Your task to perform on an android device: turn off improve location accuracy Image 0: 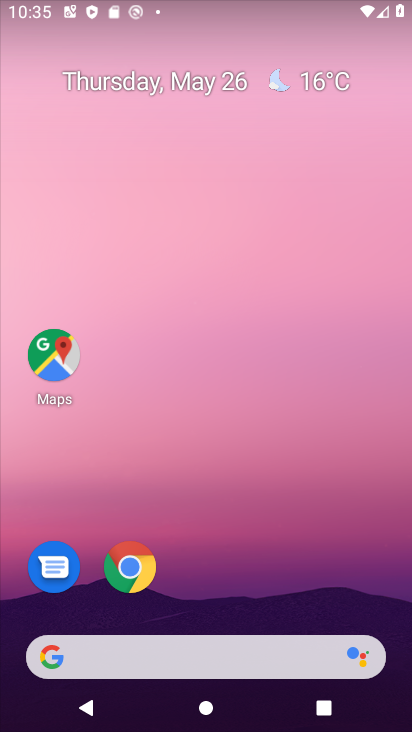
Step 0: press home button
Your task to perform on an android device: turn off improve location accuracy Image 1: 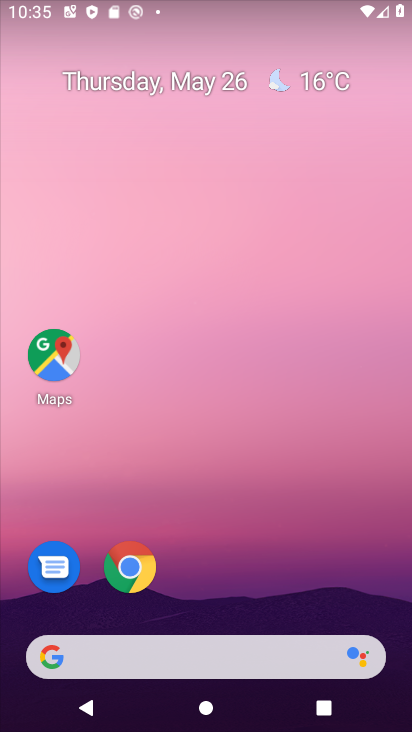
Step 1: drag from (226, 607) to (221, 213)
Your task to perform on an android device: turn off improve location accuracy Image 2: 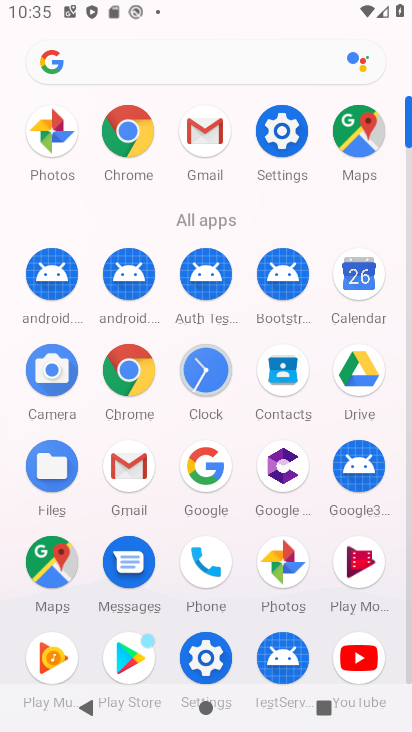
Step 2: click (279, 124)
Your task to perform on an android device: turn off improve location accuracy Image 3: 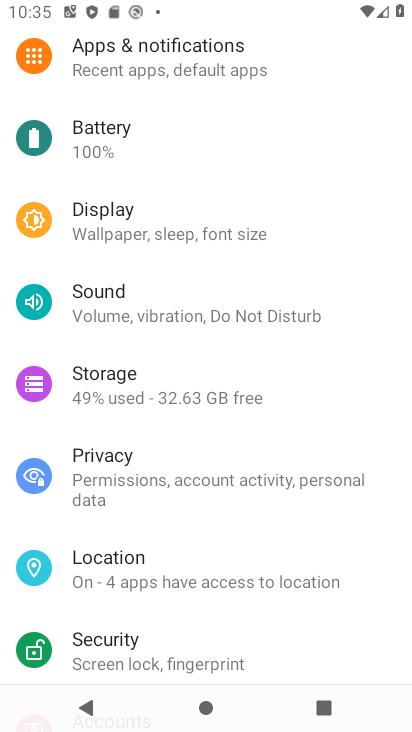
Step 3: click (164, 554)
Your task to perform on an android device: turn off improve location accuracy Image 4: 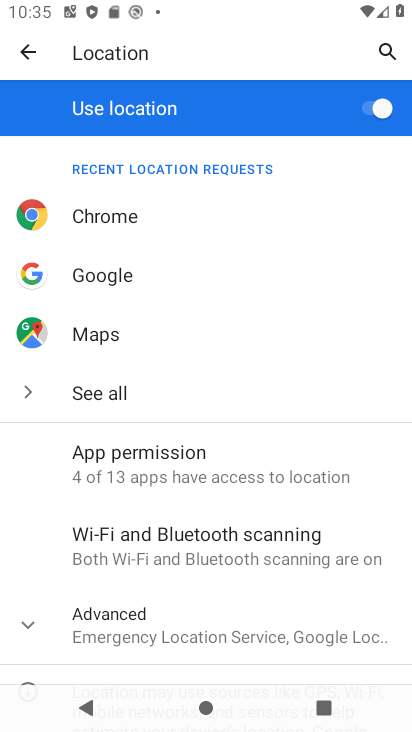
Step 4: click (90, 620)
Your task to perform on an android device: turn off improve location accuracy Image 5: 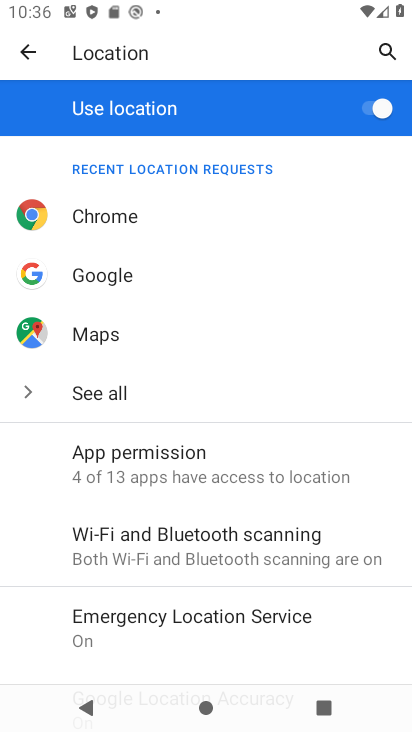
Step 5: drag from (156, 615) to (170, 214)
Your task to perform on an android device: turn off improve location accuracy Image 6: 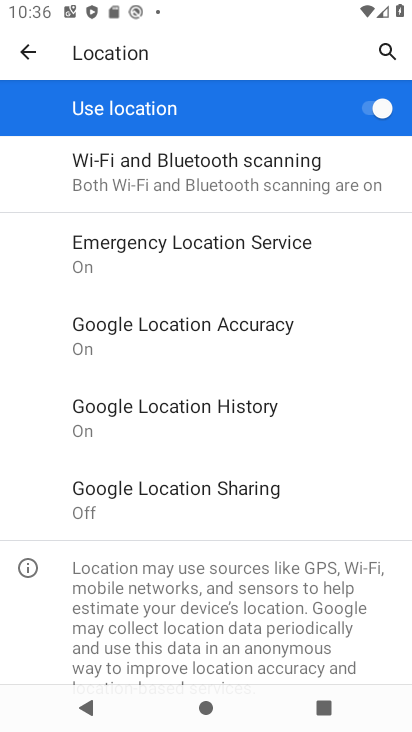
Step 6: click (109, 334)
Your task to perform on an android device: turn off improve location accuracy Image 7: 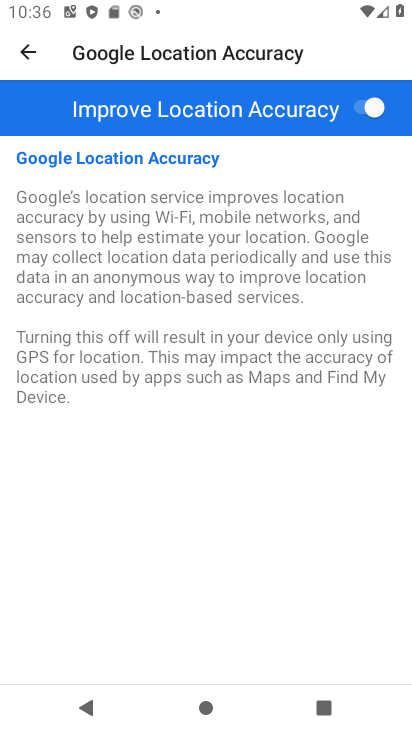
Step 7: click (364, 107)
Your task to perform on an android device: turn off improve location accuracy Image 8: 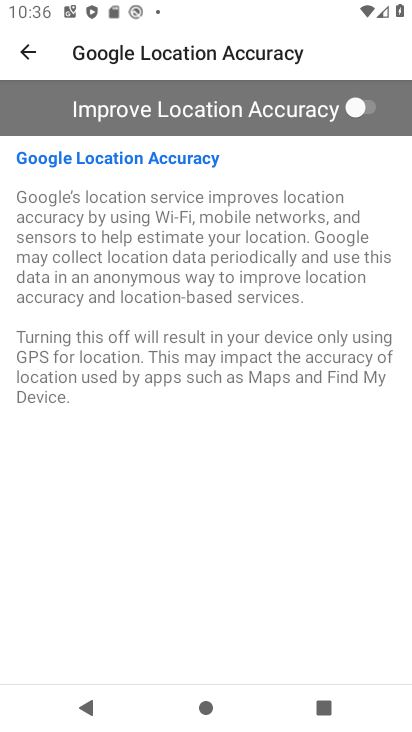
Step 8: task complete